Your task to perform on an android device: Open eBay Image 0: 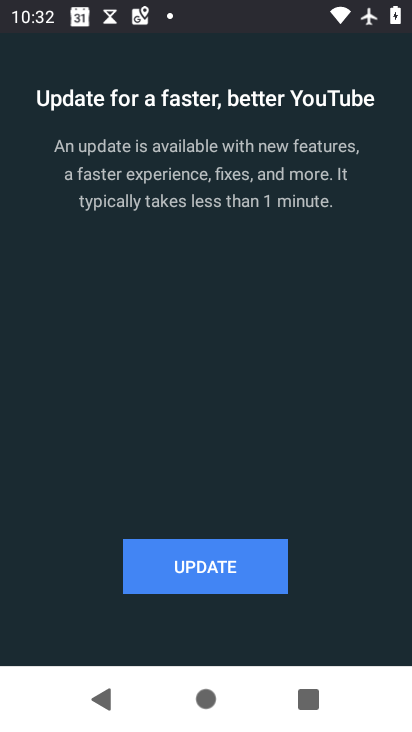
Step 0: press back button
Your task to perform on an android device: Open eBay Image 1: 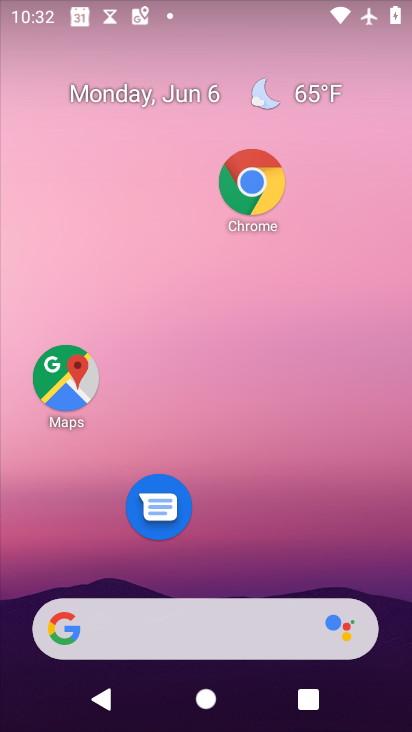
Step 1: click (283, 167)
Your task to perform on an android device: Open eBay Image 2: 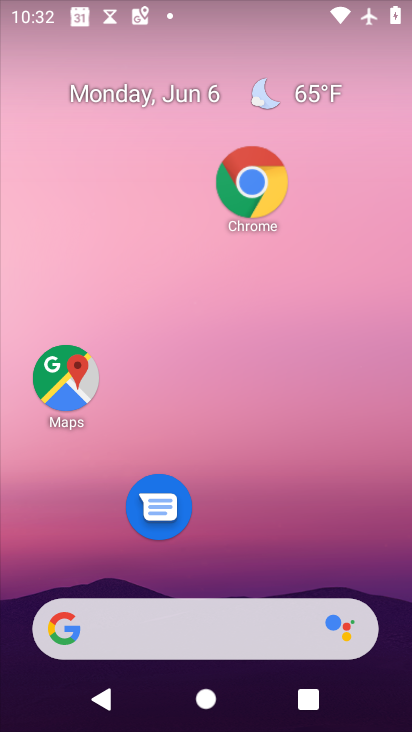
Step 2: click (259, 173)
Your task to perform on an android device: Open eBay Image 3: 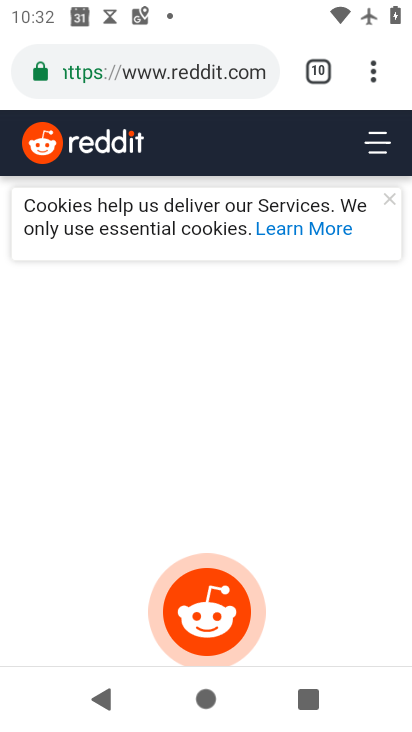
Step 3: click (373, 68)
Your task to perform on an android device: Open eBay Image 4: 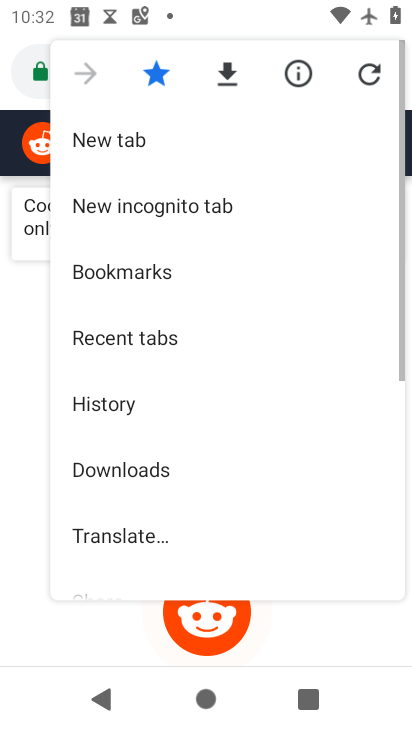
Step 4: click (136, 141)
Your task to perform on an android device: Open eBay Image 5: 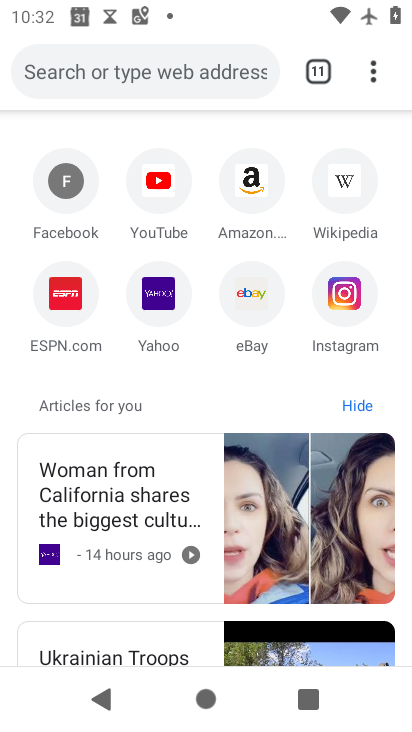
Step 5: click (246, 293)
Your task to perform on an android device: Open eBay Image 6: 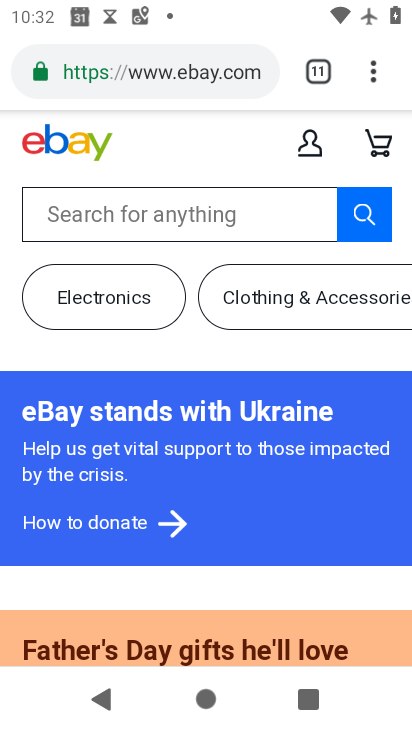
Step 6: task complete